Your task to perform on an android device: check data usage Image 0: 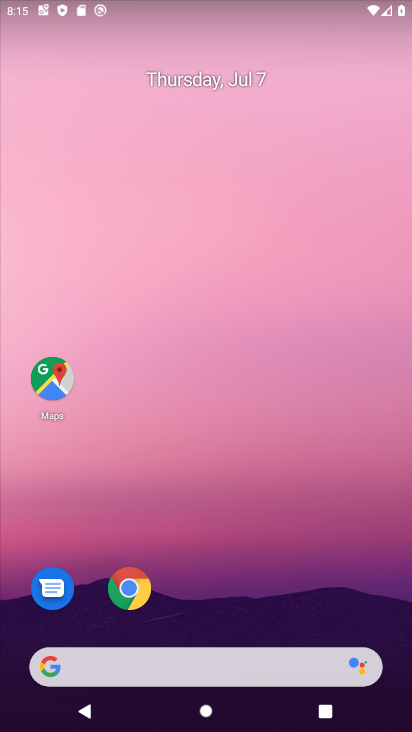
Step 0: drag from (191, 665) to (306, 150)
Your task to perform on an android device: check data usage Image 1: 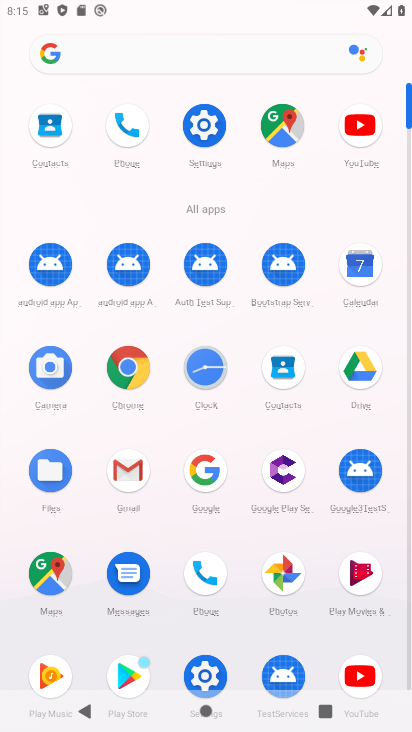
Step 1: click (213, 122)
Your task to perform on an android device: check data usage Image 2: 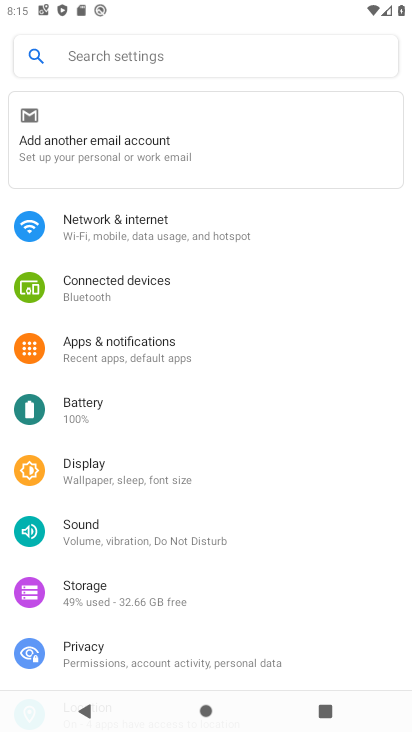
Step 2: click (183, 222)
Your task to perform on an android device: check data usage Image 3: 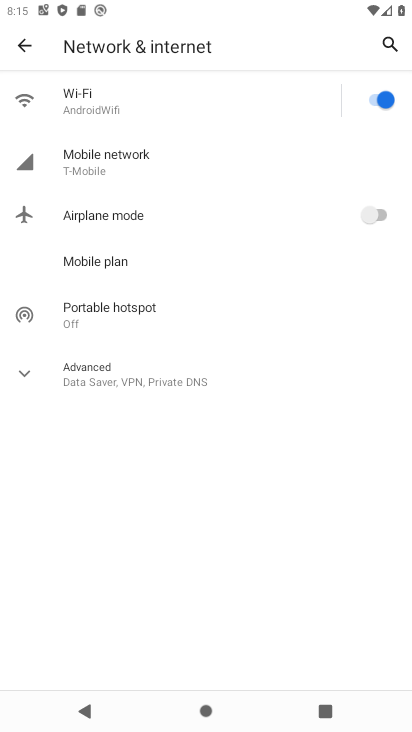
Step 3: click (140, 108)
Your task to perform on an android device: check data usage Image 4: 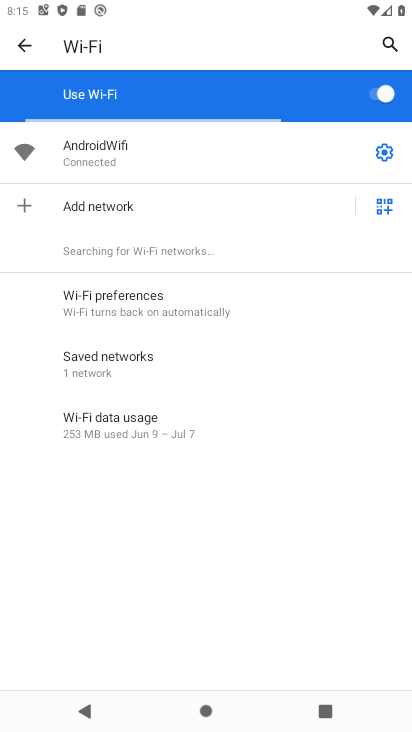
Step 4: click (132, 423)
Your task to perform on an android device: check data usage Image 5: 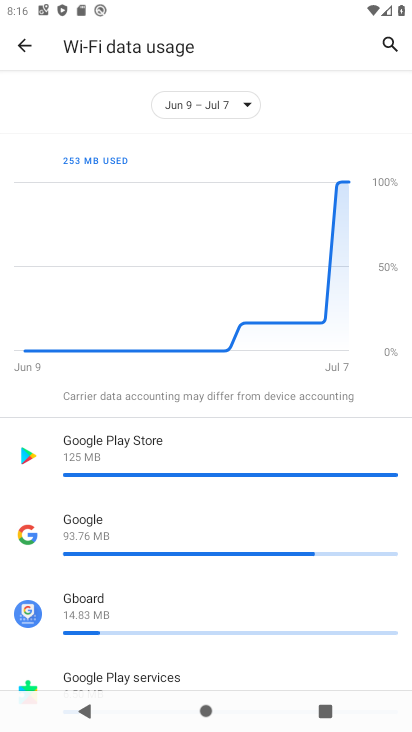
Step 5: task complete